Your task to perform on an android device: What is the recent news? Image 0: 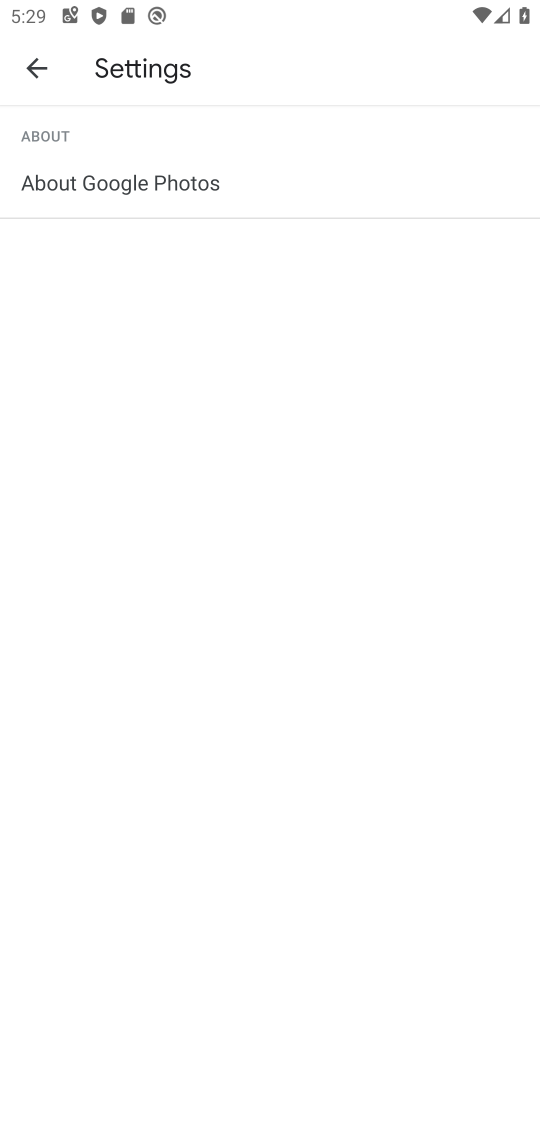
Step 0: press home button
Your task to perform on an android device: What is the recent news? Image 1: 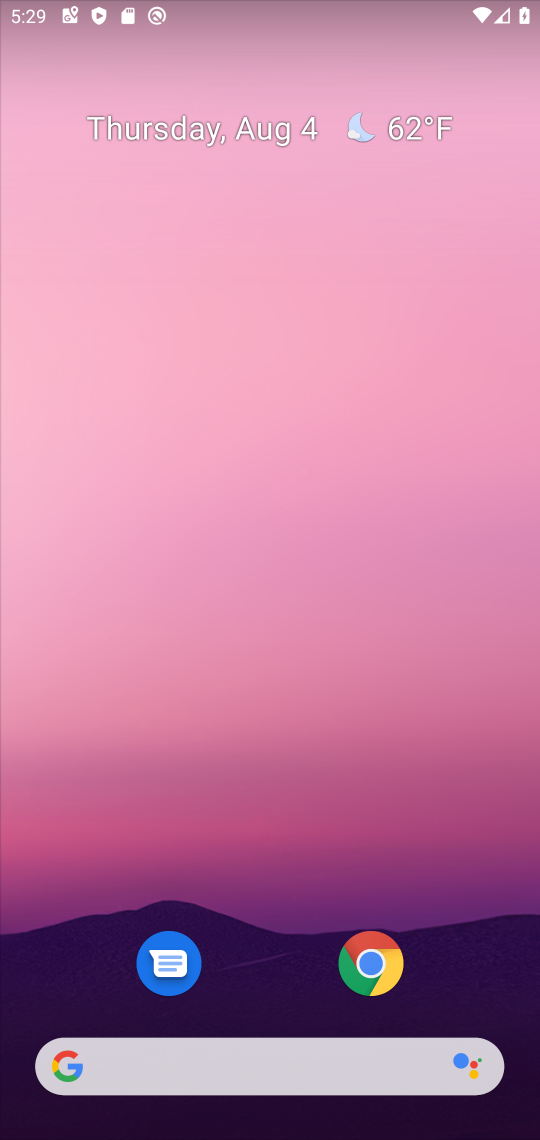
Step 1: task complete